Your task to perform on an android device: turn on data saver in the chrome app Image 0: 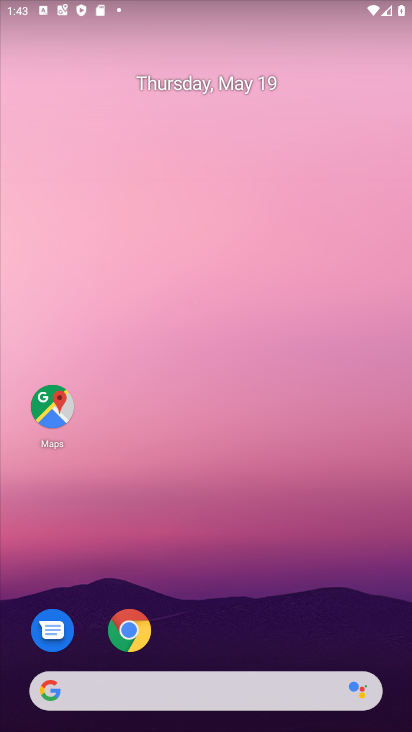
Step 0: drag from (378, 598) to (347, 132)
Your task to perform on an android device: turn on data saver in the chrome app Image 1: 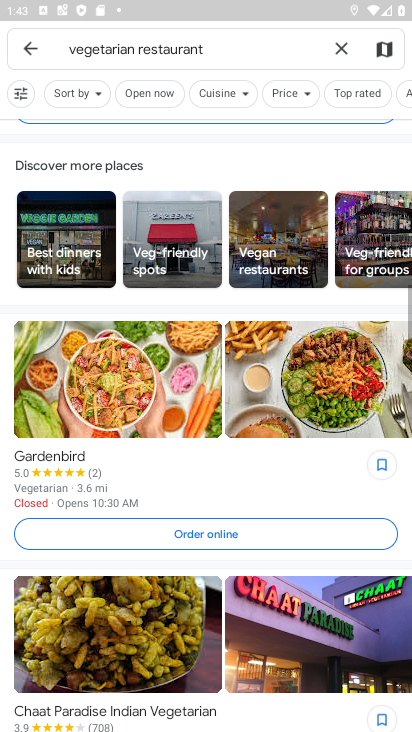
Step 1: press home button
Your task to perform on an android device: turn on data saver in the chrome app Image 2: 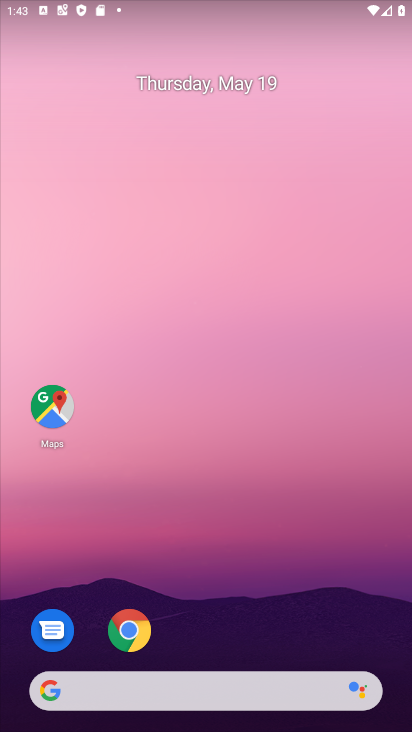
Step 2: click (127, 629)
Your task to perform on an android device: turn on data saver in the chrome app Image 3: 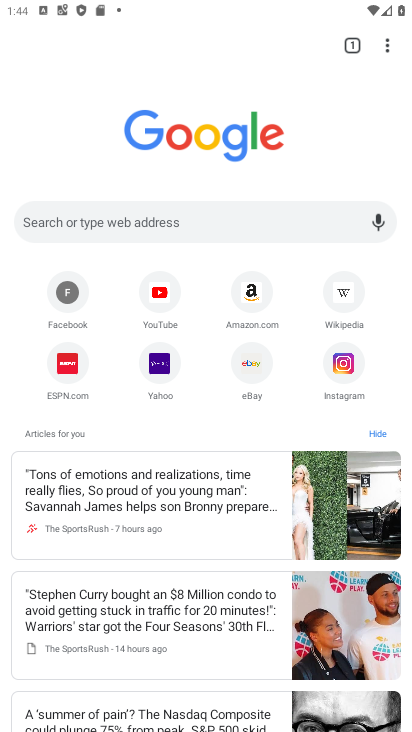
Step 3: click (388, 49)
Your task to perform on an android device: turn on data saver in the chrome app Image 4: 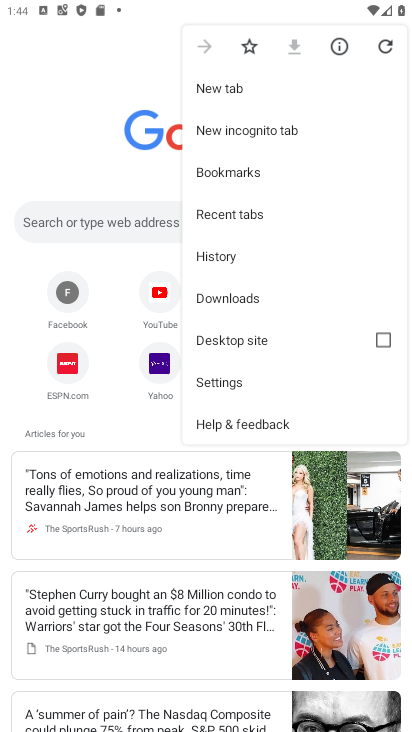
Step 4: click (238, 376)
Your task to perform on an android device: turn on data saver in the chrome app Image 5: 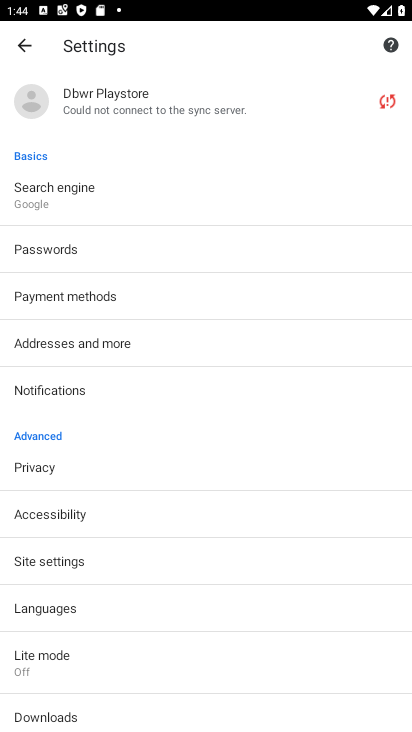
Step 5: click (44, 658)
Your task to perform on an android device: turn on data saver in the chrome app Image 6: 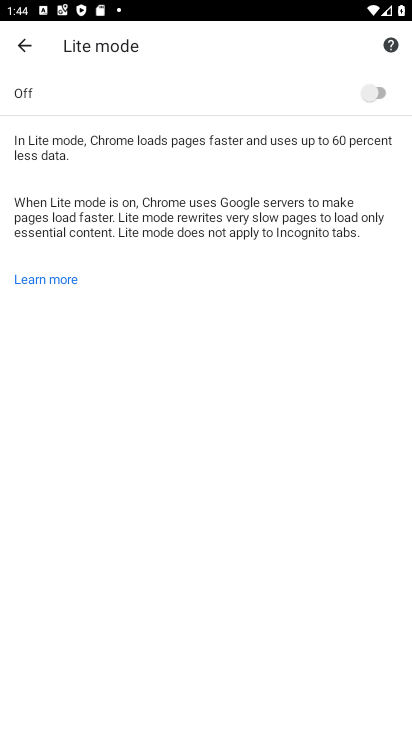
Step 6: click (381, 92)
Your task to perform on an android device: turn on data saver in the chrome app Image 7: 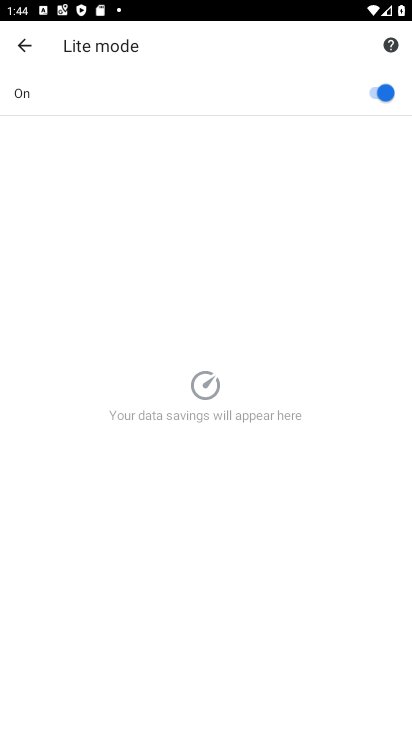
Step 7: task complete